Your task to perform on an android device: Go to sound settings Image 0: 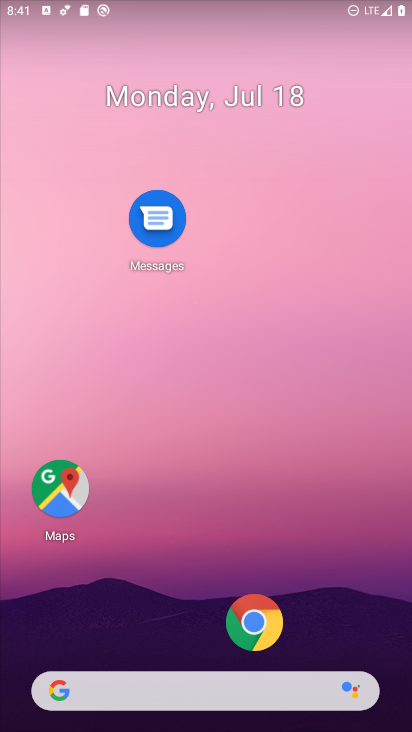
Step 0: drag from (159, 696) to (183, 120)
Your task to perform on an android device: Go to sound settings Image 1: 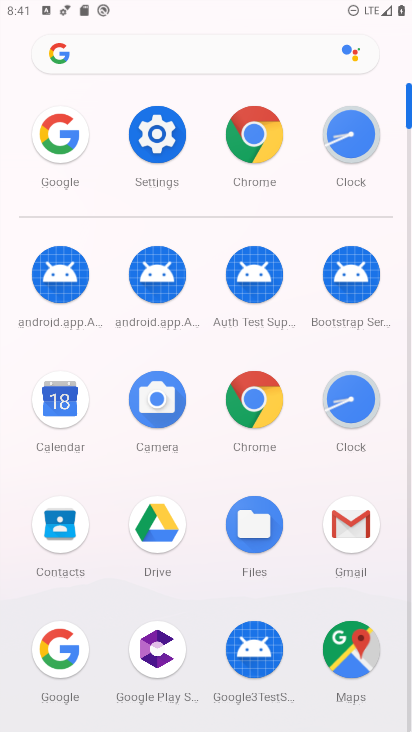
Step 1: click (170, 154)
Your task to perform on an android device: Go to sound settings Image 2: 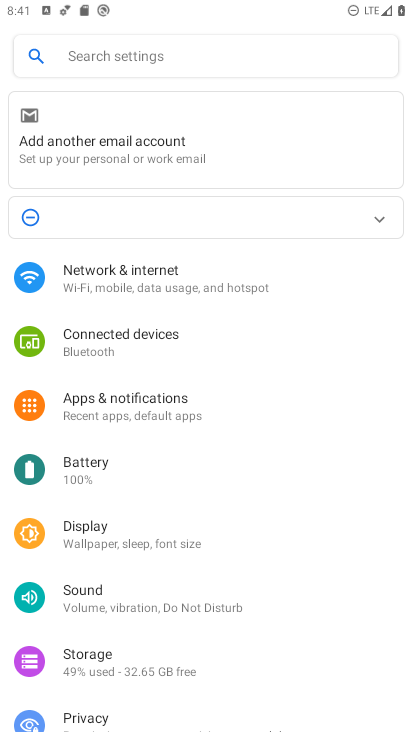
Step 2: click (134, 605)
Your task to perform on an android device: Go to sound settings Image 3: 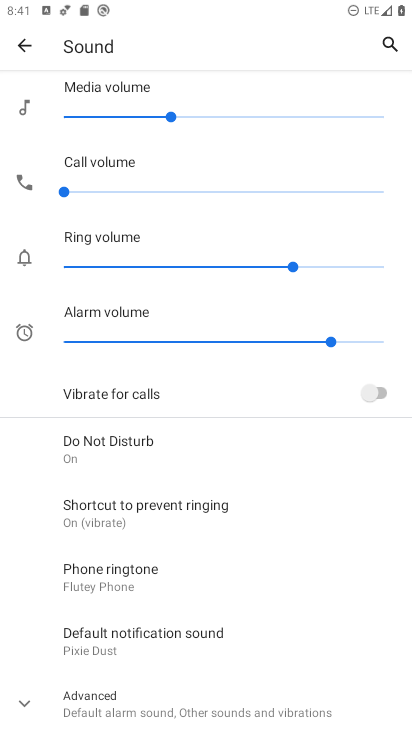
Step 3: task complete